Your task to perform on an android device: Is it going to rain today? Image 0: 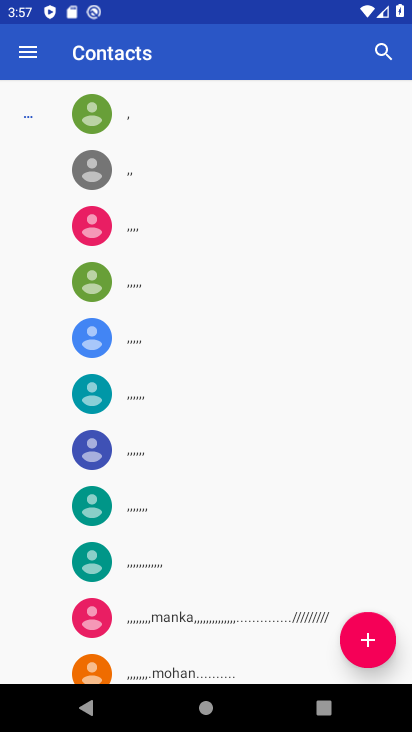
Step 0: press home button
Your task to perform on an android device: Is it going to rain today? Image 1: 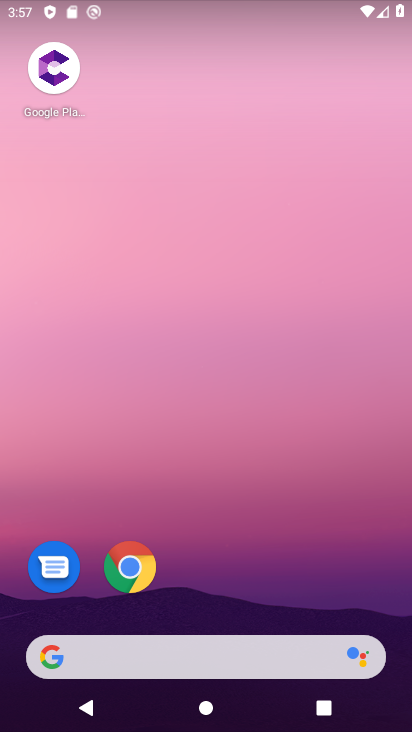
Step 1: click (125, 566)
Your task to perform on an android device: Is it going to rain today? Image 2: 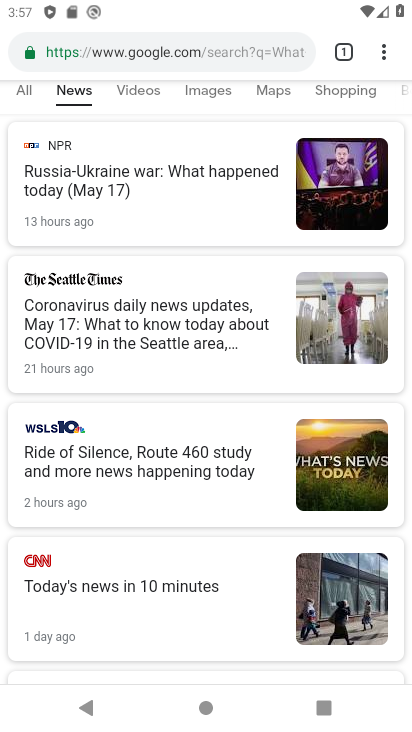
Step 2: click (265, 51)
Your task to perform on an android device: Is it going to rain today? Image 3: 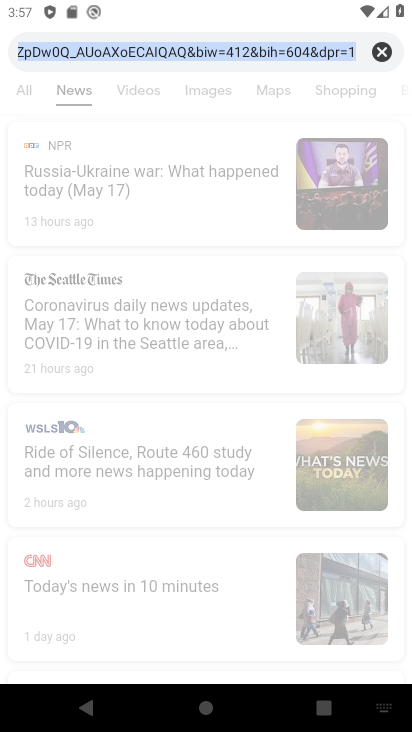
Step 3: click (376, 50)
Your task to perform on an android device: Is it going to rain today? Image 4: 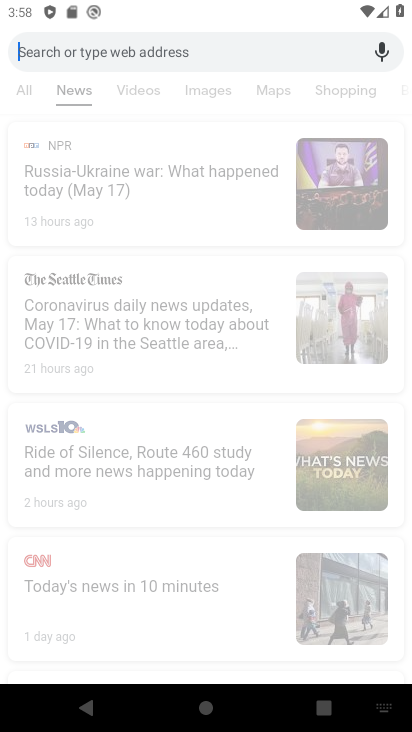
Step 4: type "Is it going to rain today?"
Your task to perform on an android device: Is it going to rain today? Image 5: 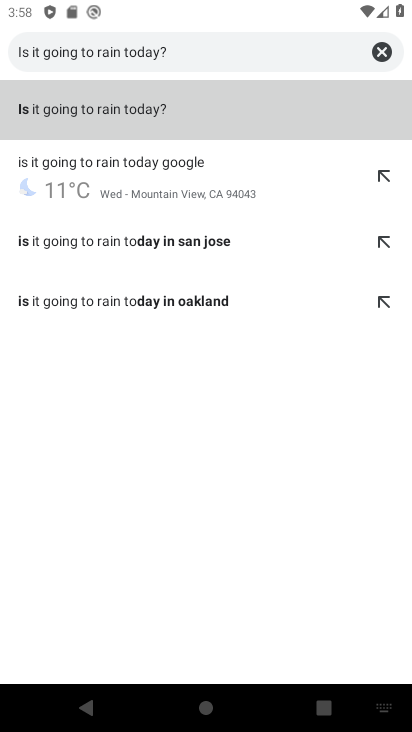
Step 5: click (84, 116)
Your task to perform on an android device: Is it going to rain today? Image 6: 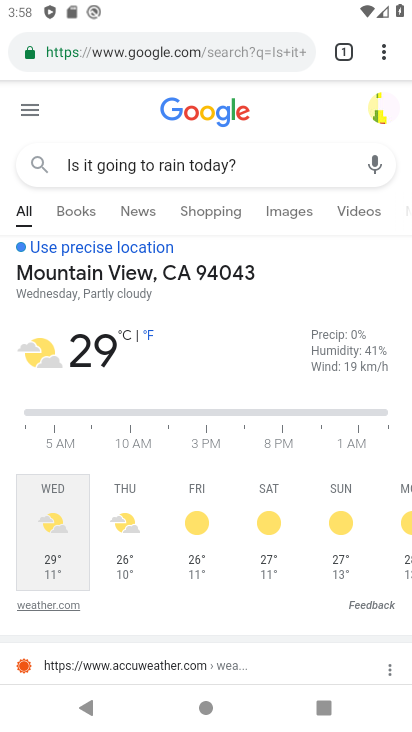
Step 6: task complete